Your task to perform on an android device: Go to Wikipedia Image 0: 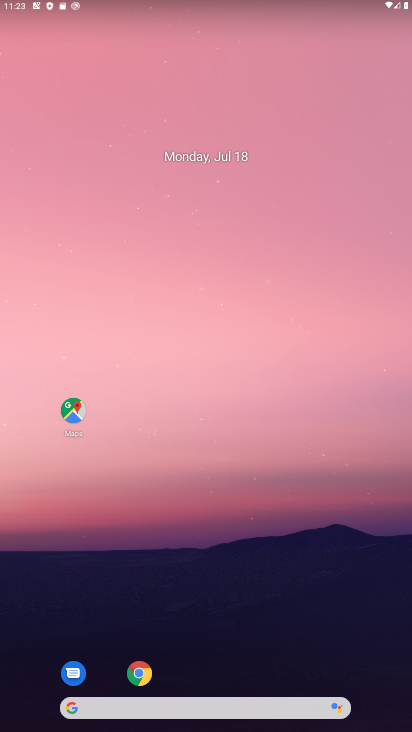
Step 0: drag from (213, 676) to (272, 19)
Your task to perform on an android device: Go to Wikipedia Image 1: 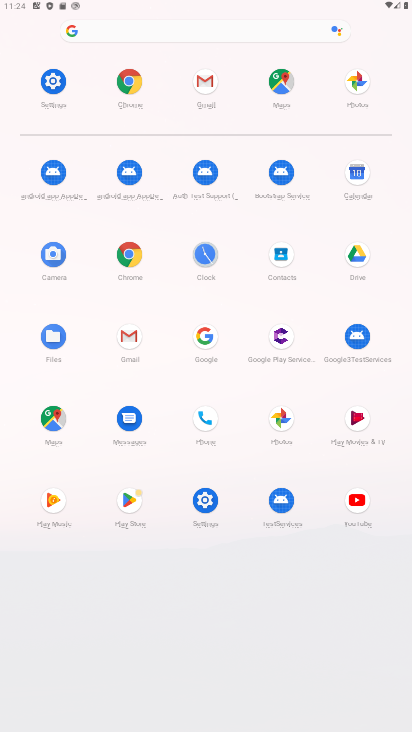
Step 1: click (126, 81)
Your task to perform on an android device: Go to Wikipedia Image 2: 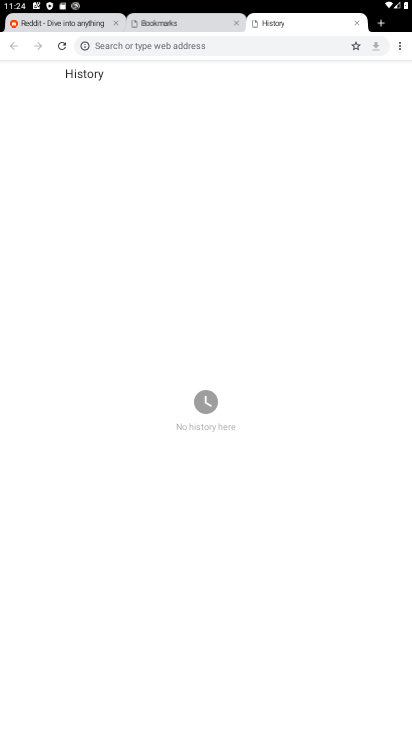
Step 2: click (375, 21)
Your task to perform on an android device: Go to Wikipedia Image 3: 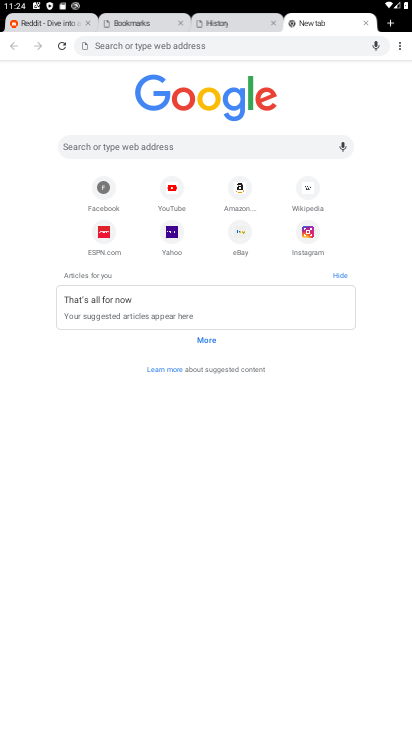
Step 3: click (299, 186)
Your task to perform on an android device: Go to Wikipedia Image 4: 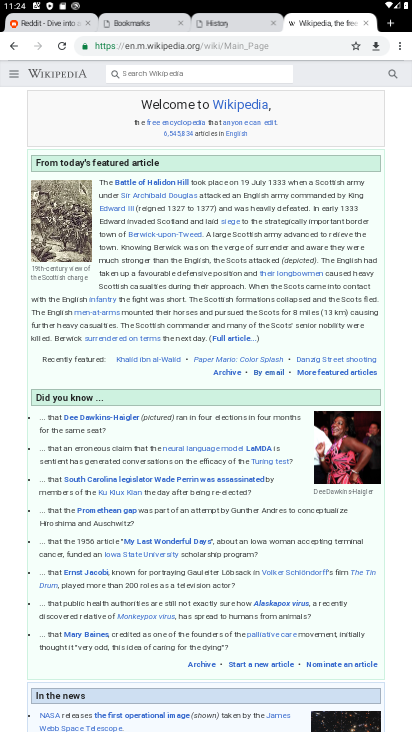
Step 4: task complete